Your task to perform on an android device: see tabs open on other devices in the chrome app Image 0: 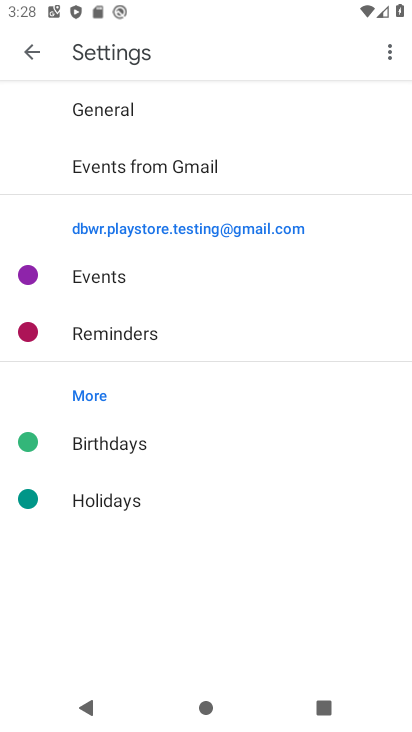
Step 0: press back button
Your task to perform on an android device: see tabs open on other devices in the chrome app Image 1: 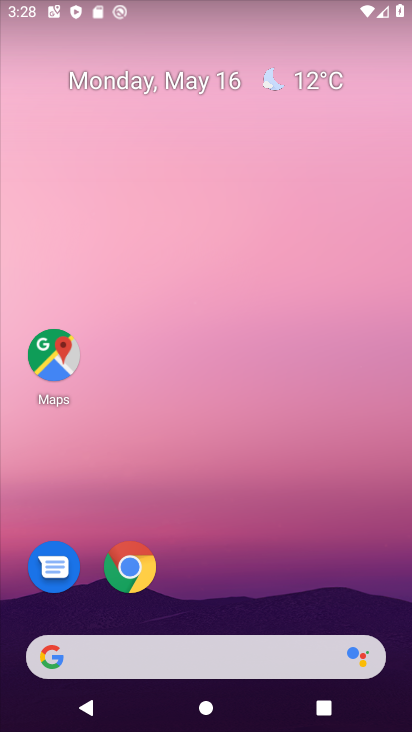
Step 1: drag from (269, 502) to (219, 28)
Your task to perform on an android device: see tabs open on other devices in the chrome app Image 2: 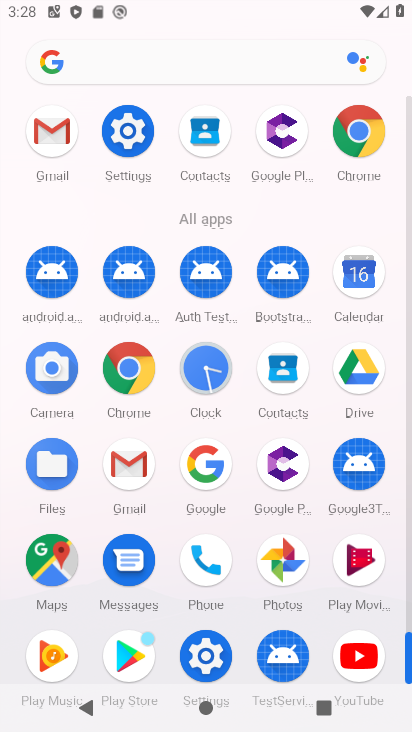
Step 2: drag from (5, 413) to (8, 161)
Your task to perform on an android device: see tabs open on other devices in the chrome app Image 3: 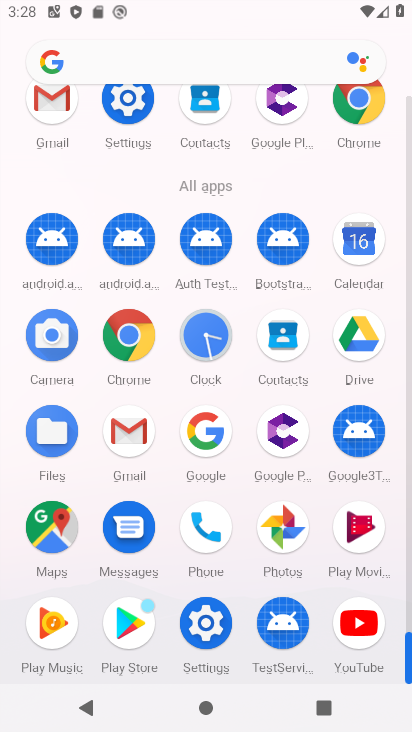
Step 3: drag from (20, 475) to (0, 201)
Your task to perform on an android device: see tabs open on other devices in the chrome app Image 4: 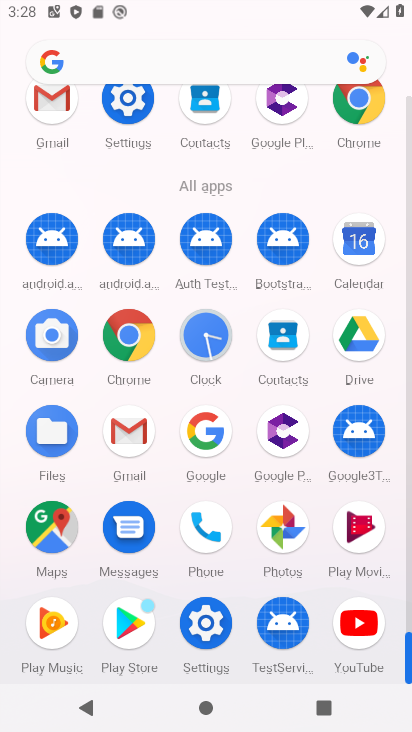
Step 4: click (130, 328)
Your task to perform on an android device: see tabs open on other devices in the chrome app Image 5: 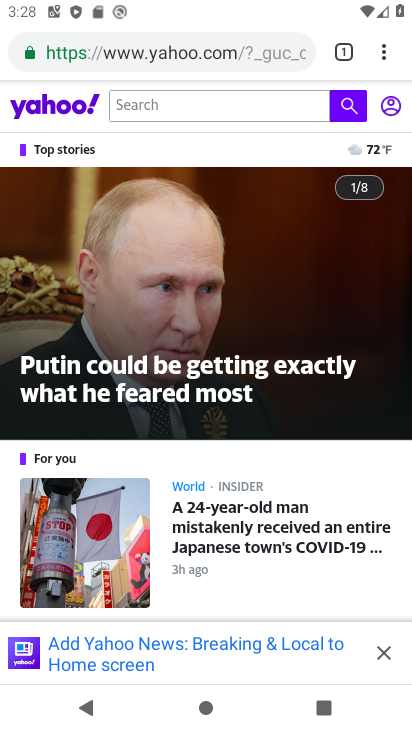
Step 5: task complete